Your task to perform on an android device: refresh tabs in the chrome app Image 0: 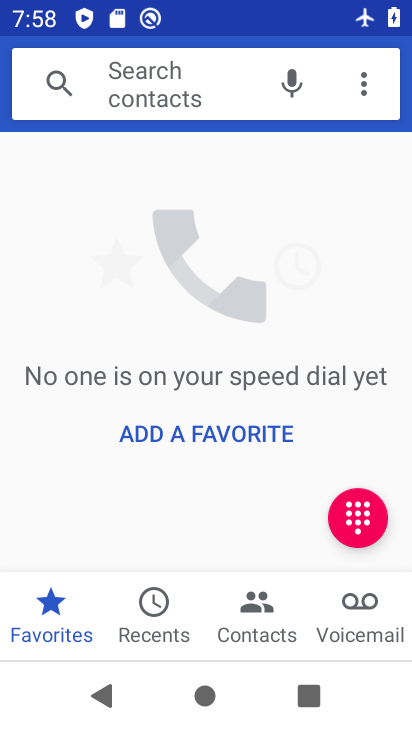
Step 0: press home button
Your task to perform on an android device: refresh tabs in the chrome app Image 1: 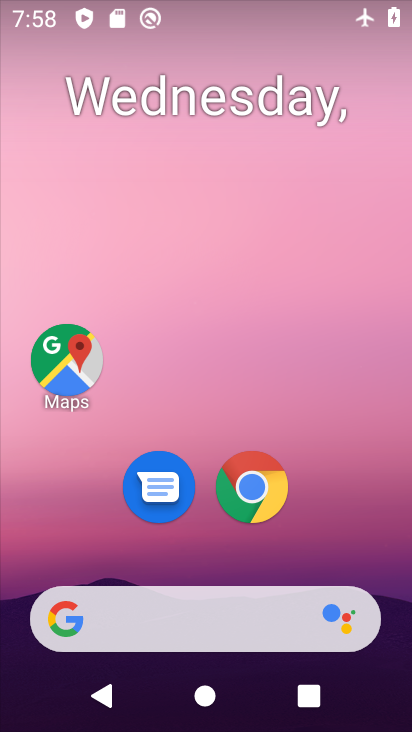
Step 1: click (255, 487)
Your task to perform on an android device: refresh tabs in the chrome app Image 2: 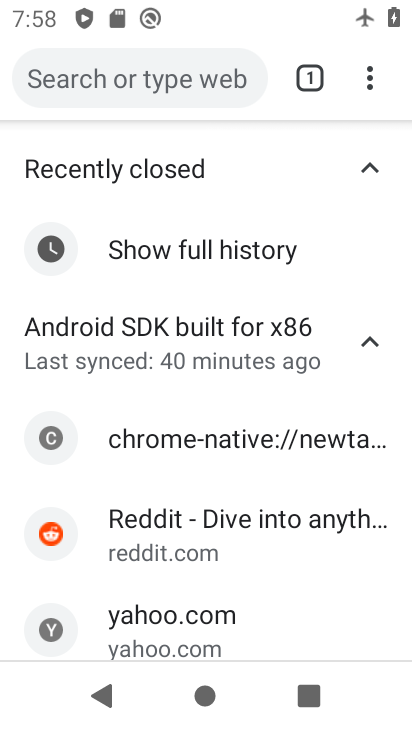
Step 2: click (377, 73)
Your task to perform on an android device: refresh tabs in the chrome app Image 3: 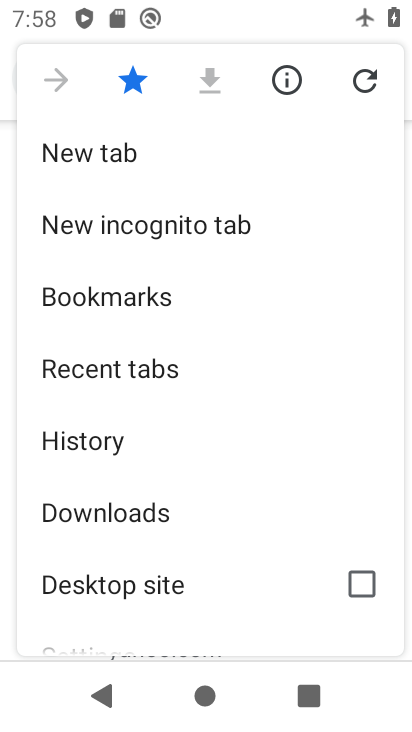
Step 3: click (361, 83)
Your task to perform on an android device: refresh tabs in the chrome app Image 4: 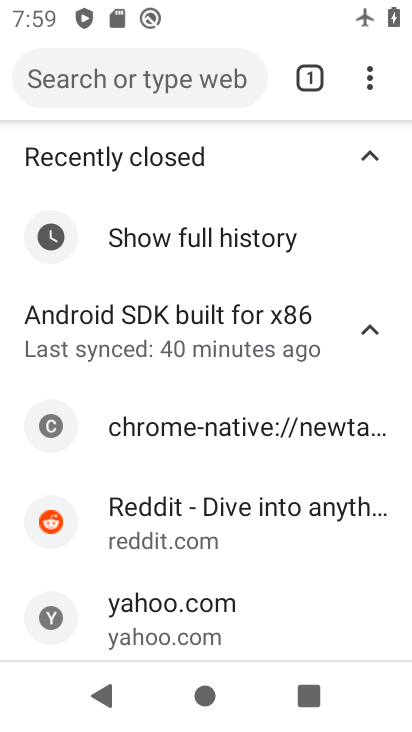
Step 4: task complete